Your task to perform on an android device: What's on my calendar tomorrow? Image 0: 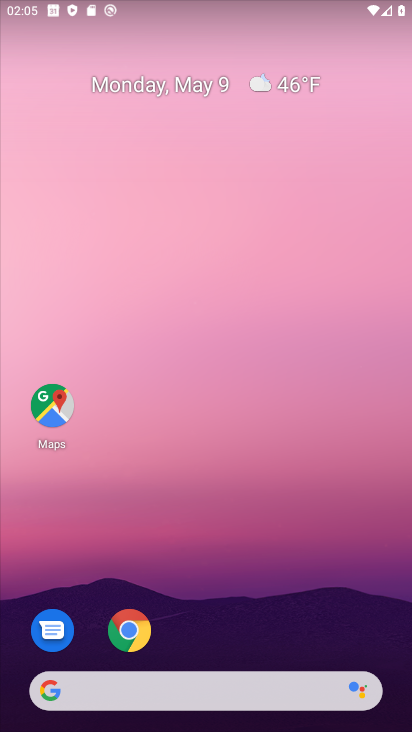
Step 0: drag from (211, 559) to (240, 64)
Your task to perform on an android device: What's on my calendar tomorrow? Image 1: 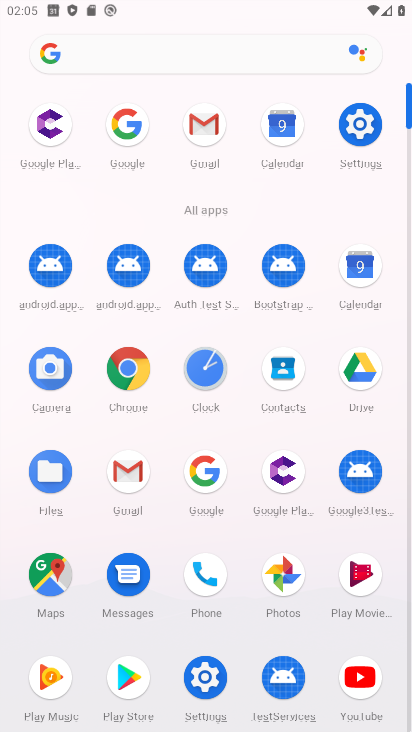
Step 1: click (282, 128)
Your task to perform on an android device: What's on my calendar tomorrow? Image 2: 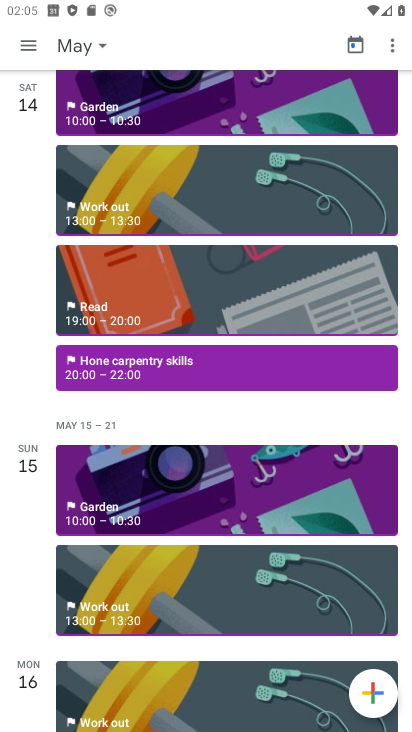
Step 2: click (96, 41)
Your task to perform on an android device: What's on my calendar tomorrow? Image 3: 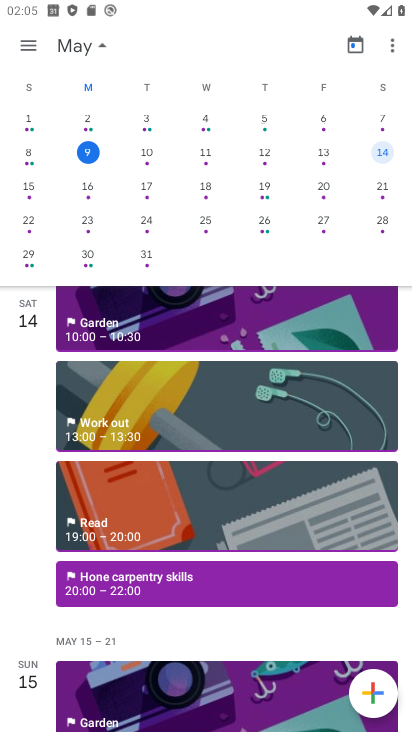
Step 3: click (153, 151)
Your task to perform on an android device: What's on my calendar tomorrow? Image 4: 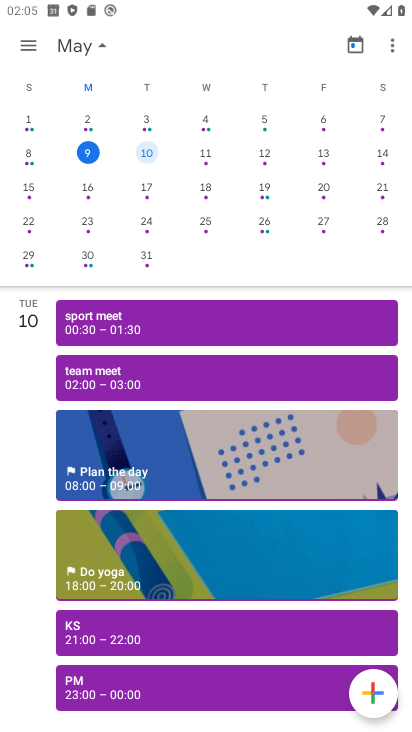
Step 4: task complete